Your task to perform on an android device: clear all cookies in the chrome app Image 0: 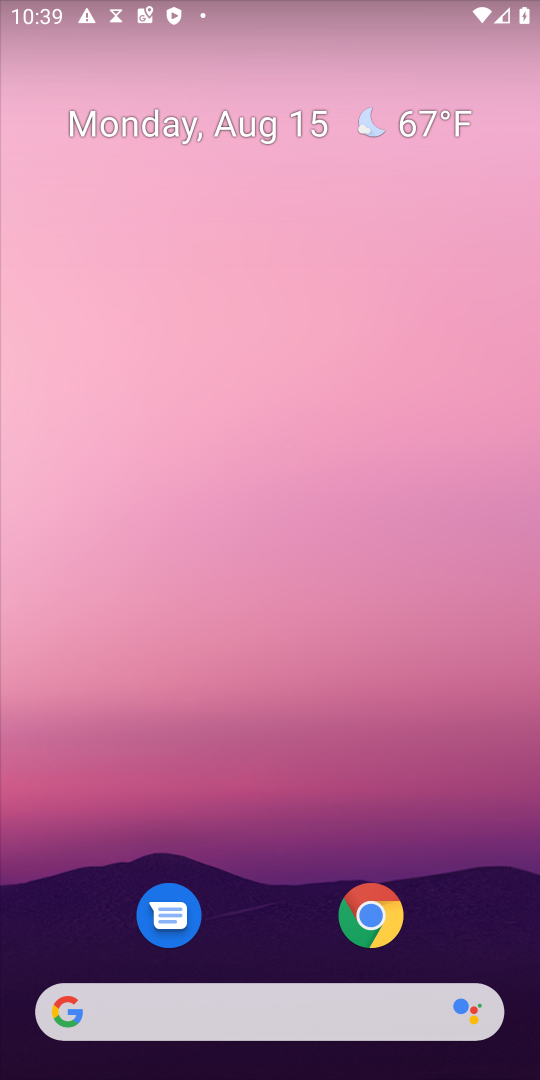
Step 0: press home button
Your task to perform on an android device: clear all cookies in the chrome app Image 1: 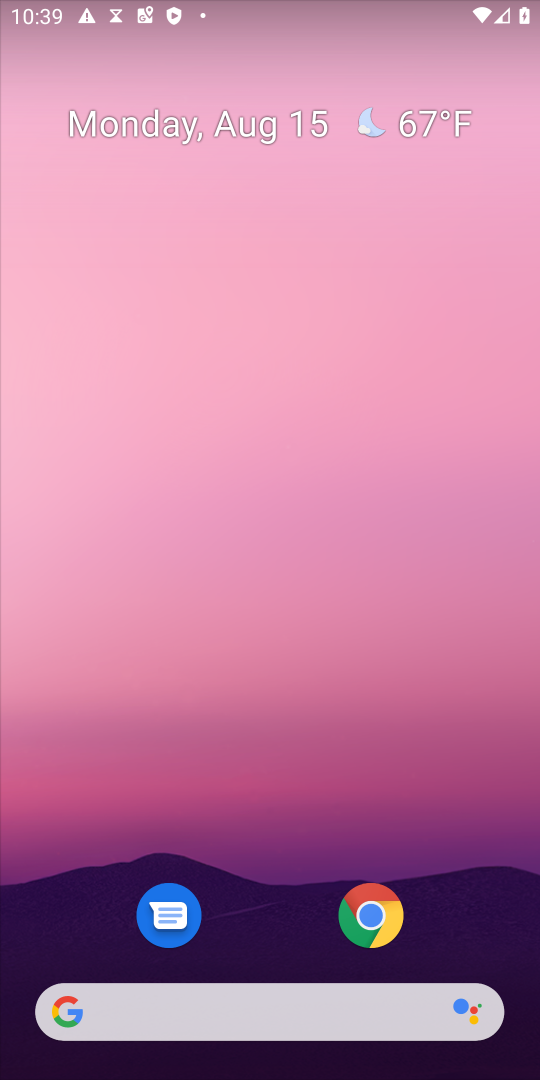
Step 1: click (373, 926)
Your task to perform on an android device: clear all cookies in the chrome app Image 2: 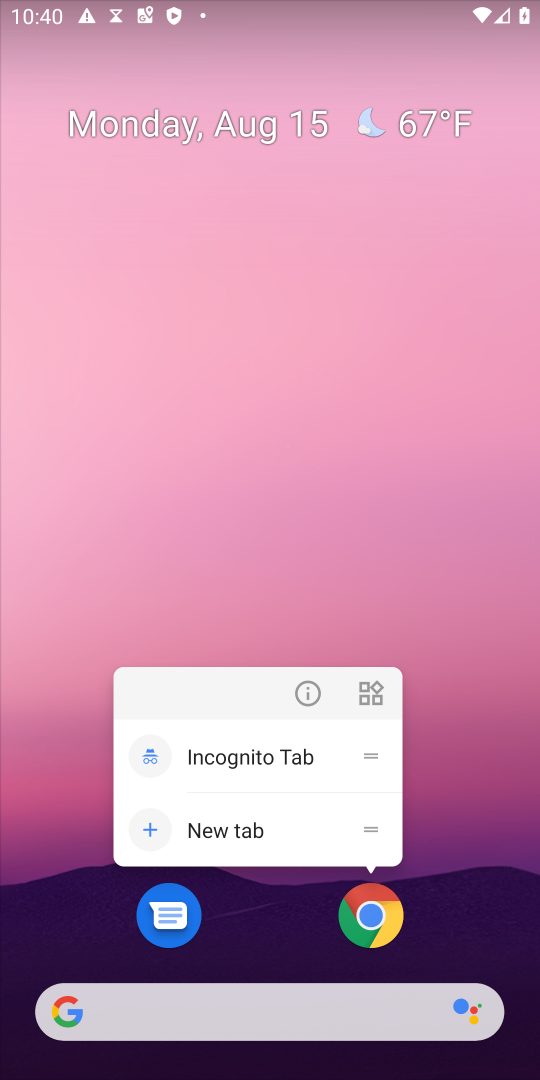
Step 2: click (373, 926)
Your task to perform on an android device: clear all cookies in the chrome app Image 3: 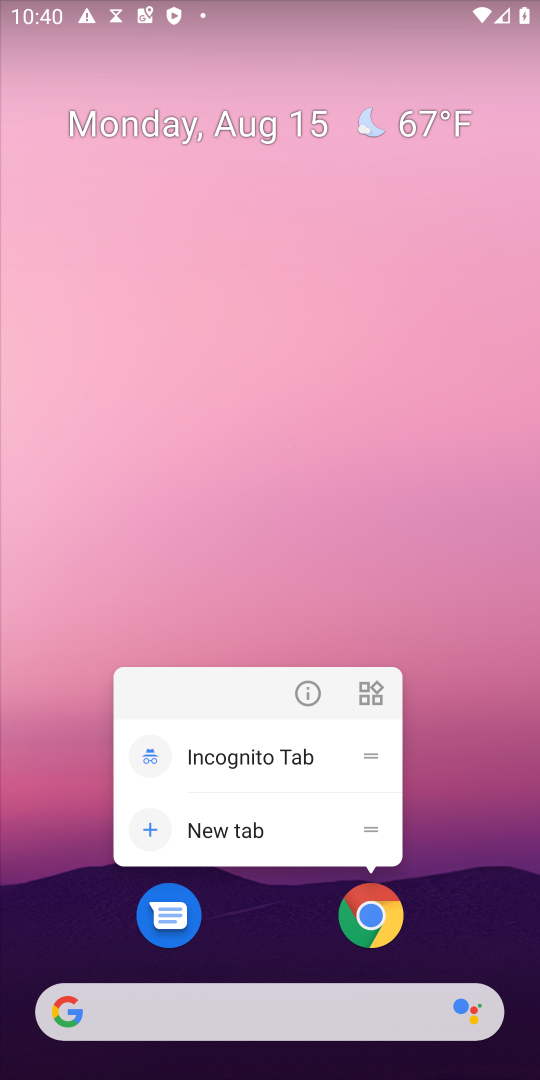
Step 3: click (373, 926)
Your task to perform on an android device: clear all cookies in the chrome app Image 4: 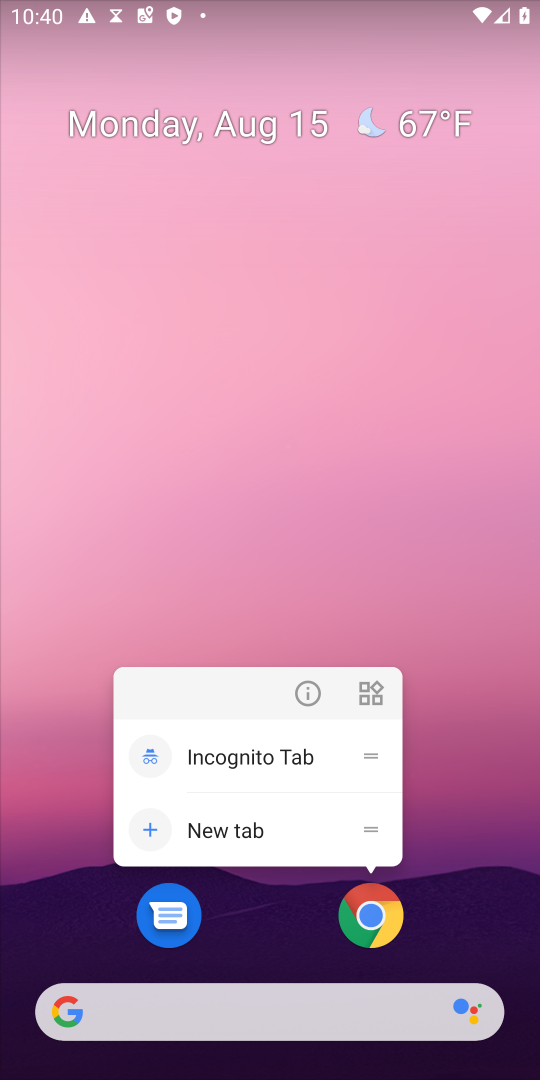
Step 4: click (369, 929)
Your task to perform on an android device: clear all cookies in the chrome app Image 5: 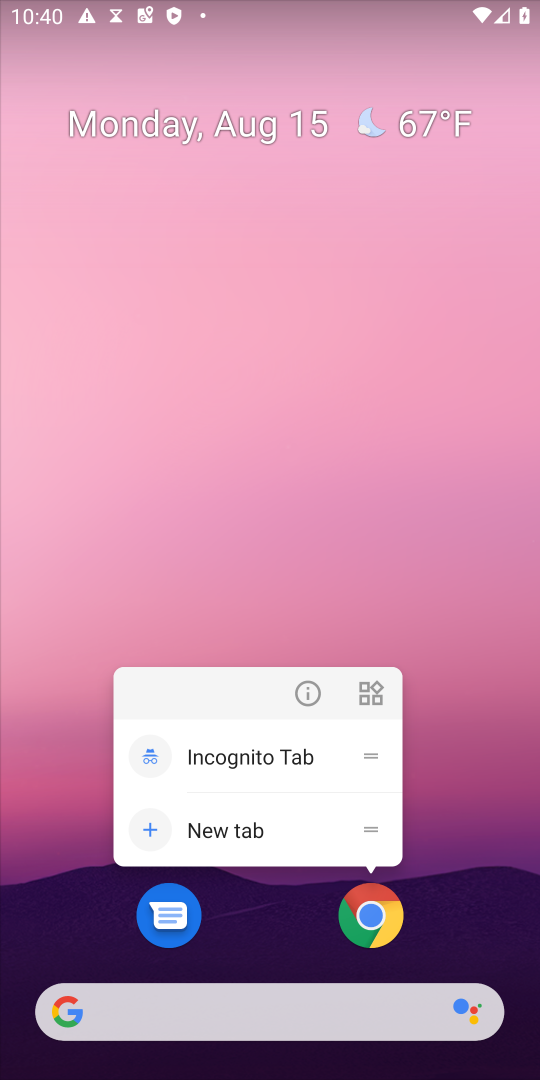
Step 5: click (369, 929)
Your task to perform on an android device: clear all cookies in the chrome app Image 6: 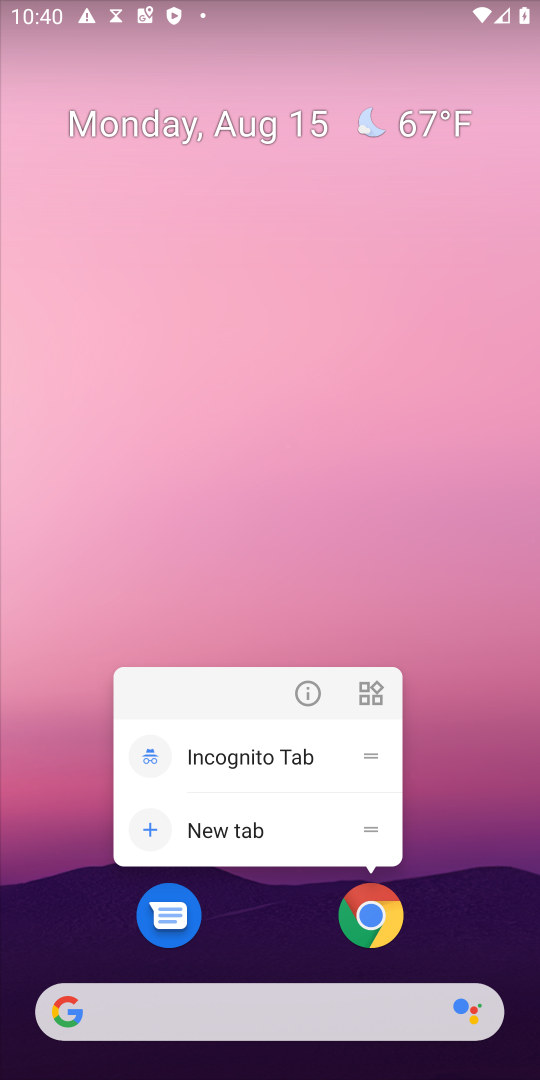
Step 6: click (392, 921)
Your task to perform on an android device: clear all cookies in the chrome app Image 7: 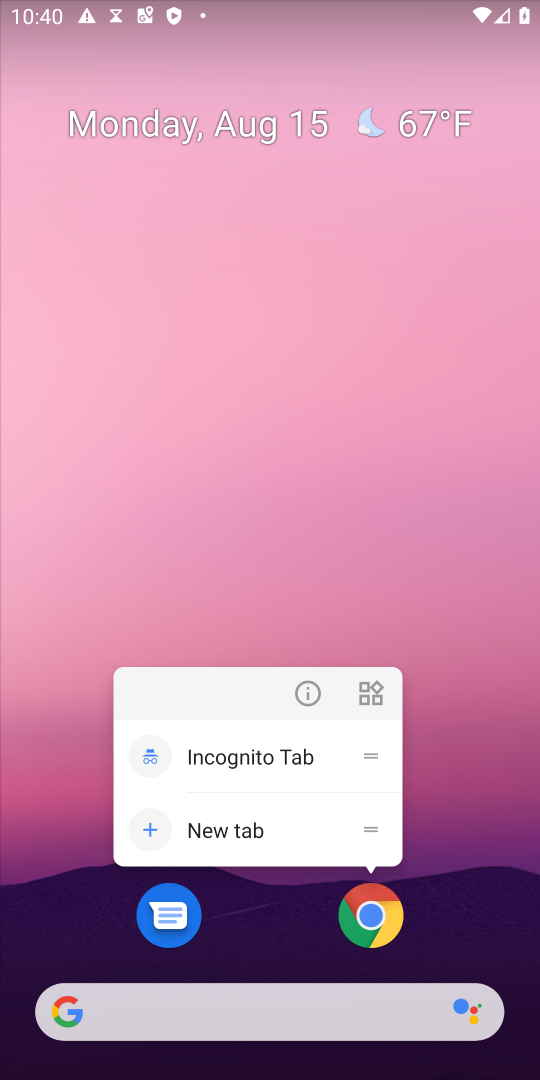
Step 7: click (379, 925)
Your task to perform on an android device: clear all cookies in the chrome app Image 8: 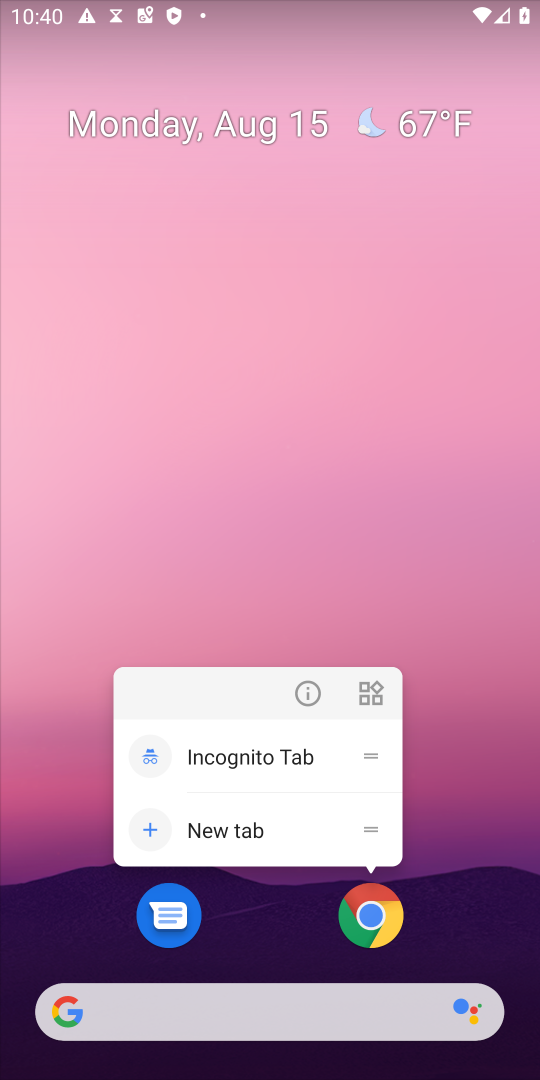
Step 8: click (379, 925)
Your task to perform on an android device: clear all cookies in the chrome app Image 9: 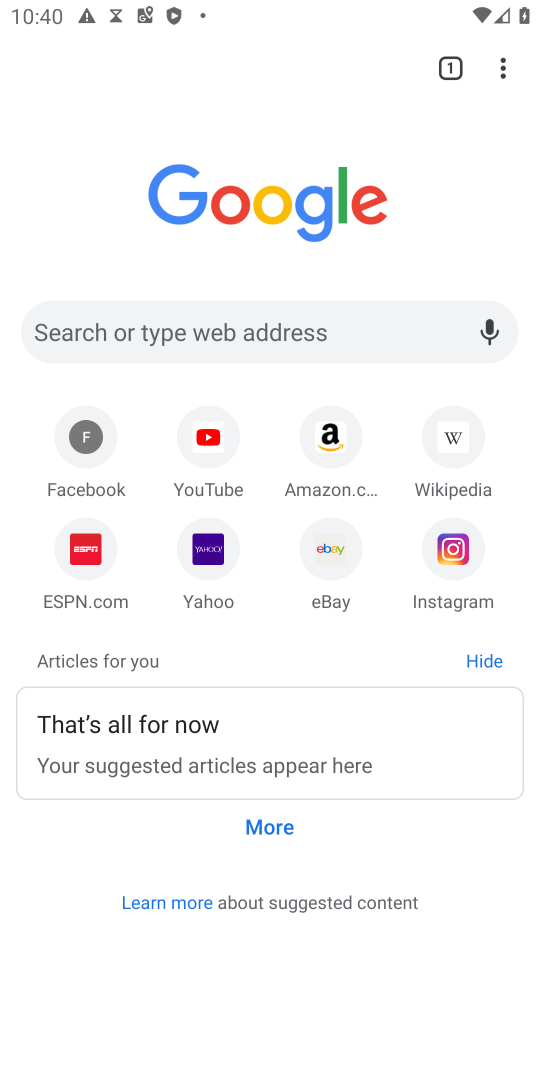
Step 9: drag from (504, 63) to (291, 562)
Your task to perform on an android device: clear all cookies in the chrome app Image 10: 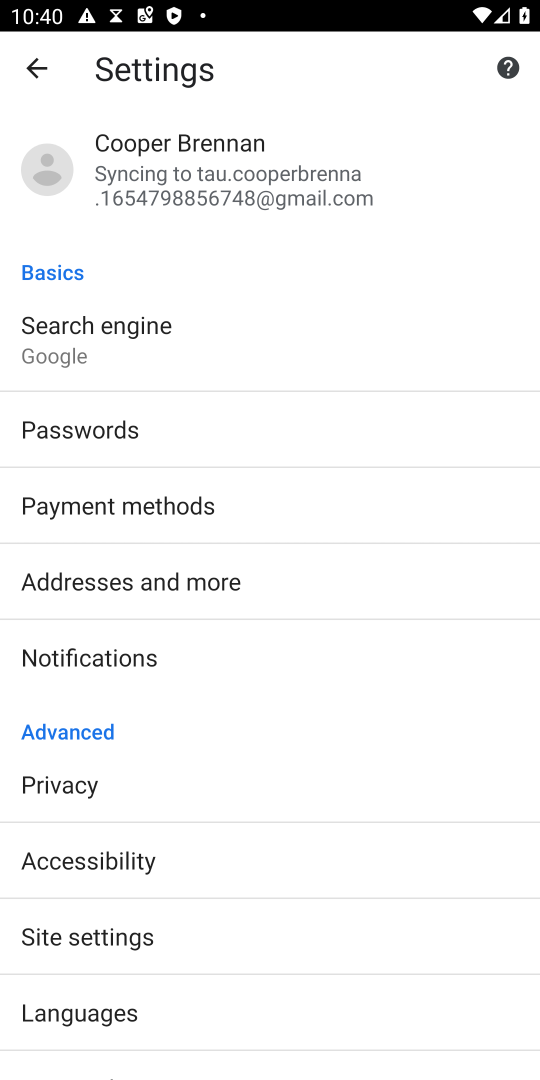
Step 10: click (58, 787)
Your task to perform on an android device: clear all cookies in the chrome app Image 11: 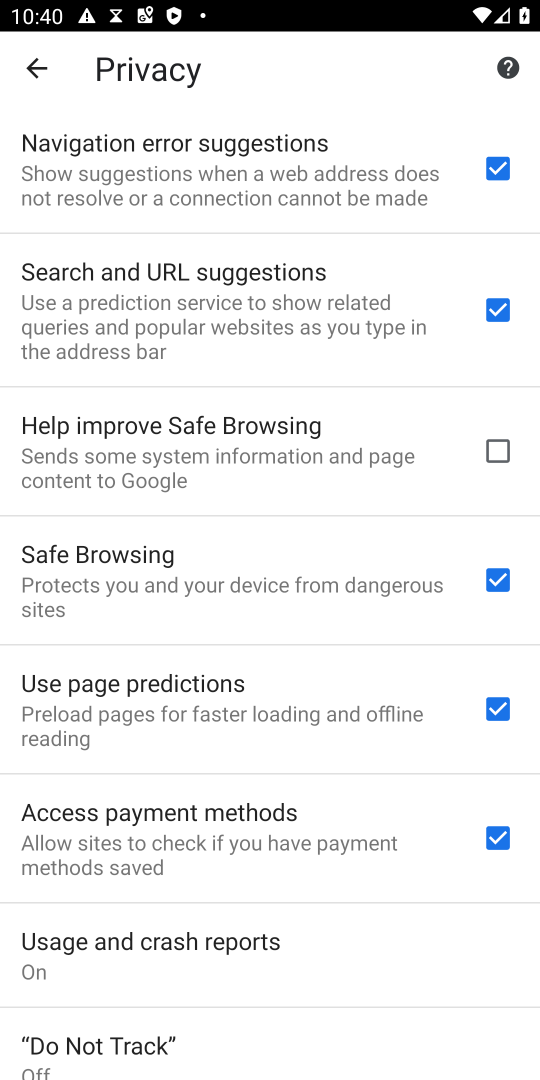
Step 11: drag from (445, 967) to (529, 358)
Your task to perform on an android device: clear all cookies in the chrome app Image 12: 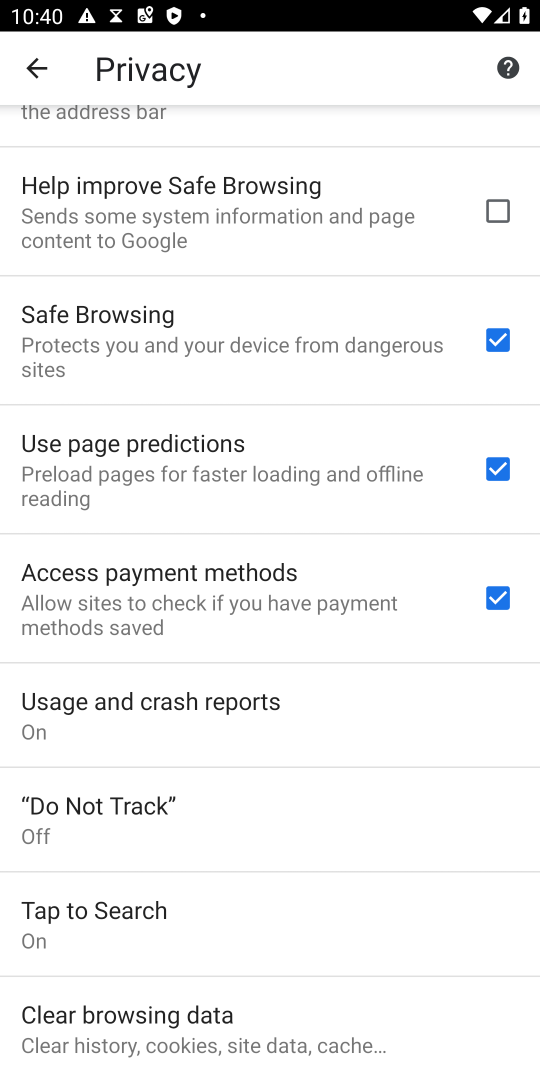
Step 12: click (149, 1022)
Your task to perform on an android device: clear all cookies in the chrome app Image 13: 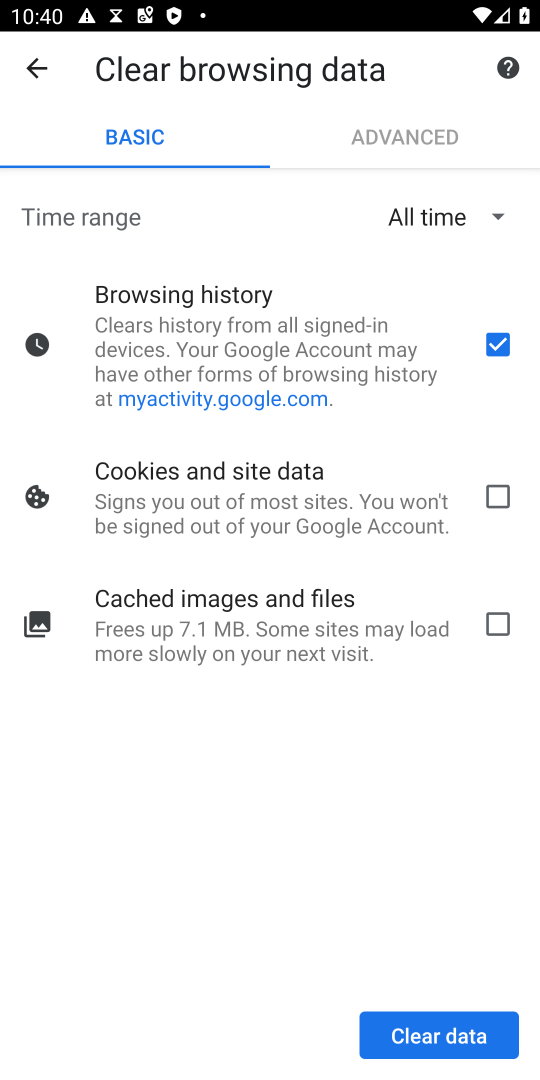
Step 13: click (500, 502)
Your task to perform on an android device: clear all cookies in the chrome app Image 14: 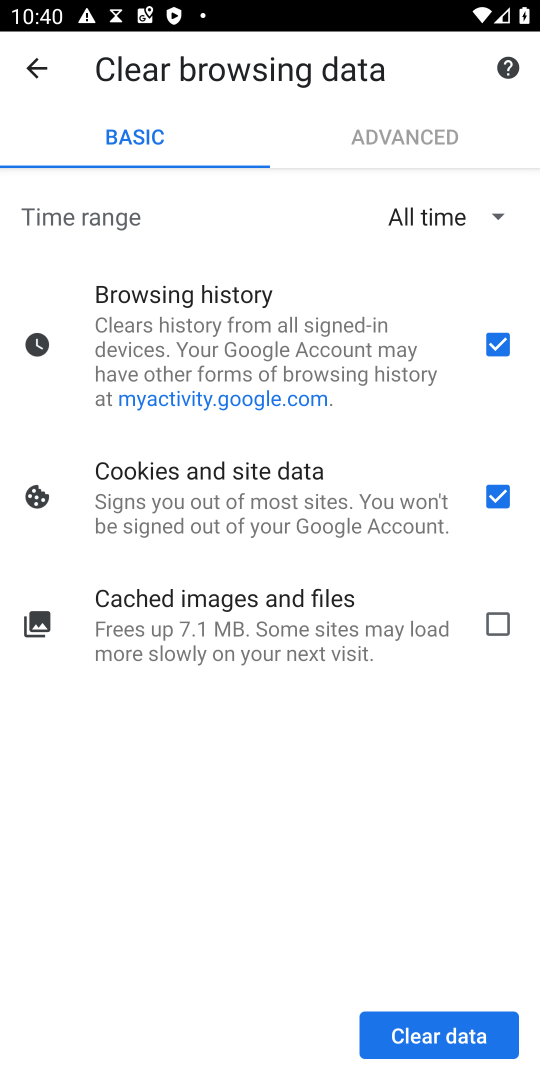
Step 14: click (494, 340)
Your task to perform on an android device: clear all cookies in the chrome app Image 15: 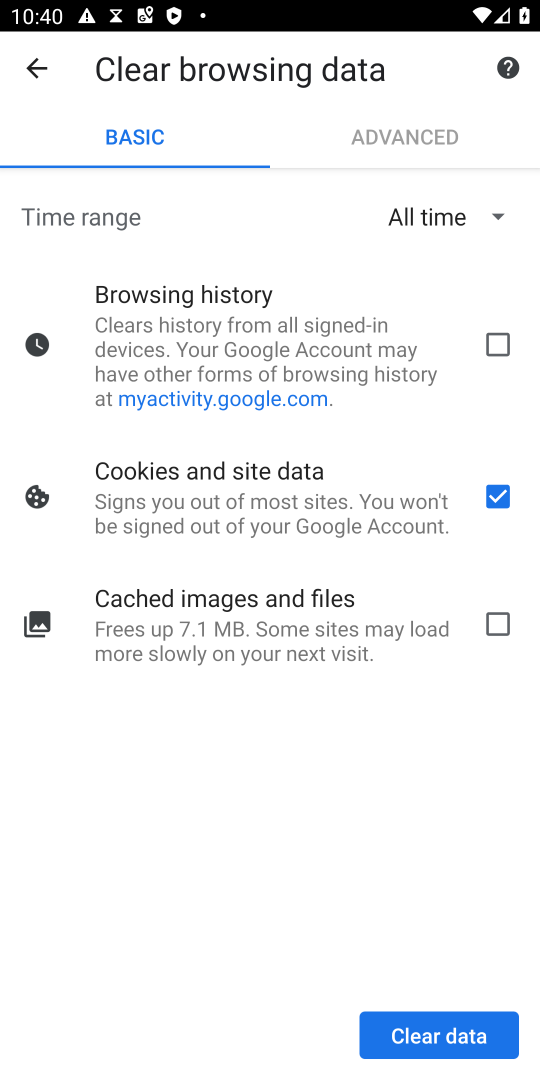
Step 15: click (431, 1049)
Your task to perform on an android device: clear all cookies in the chrome app Image 16: 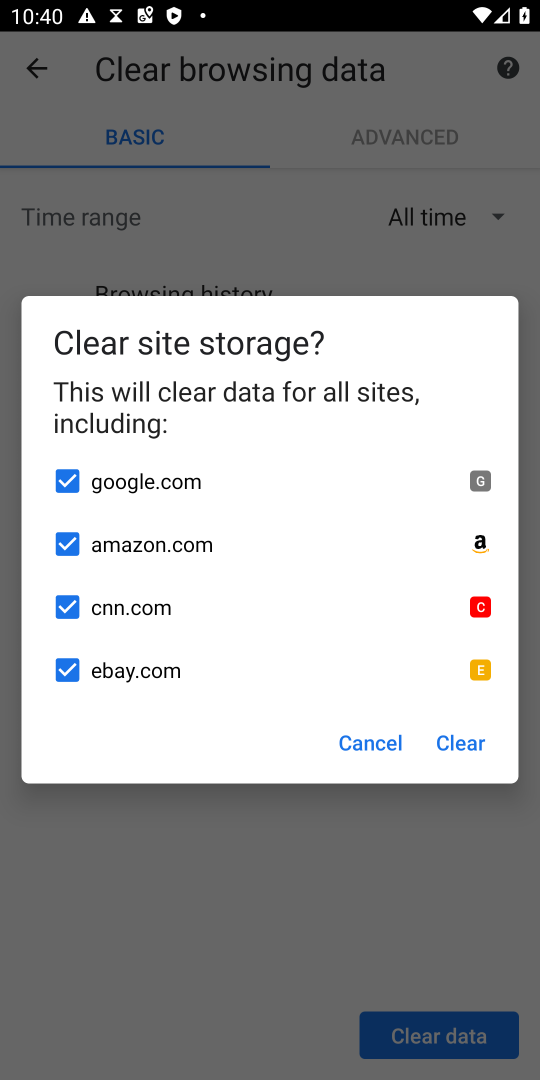
Step 16: click (476, 749)
Your task to perform on an android device: clear all cookies in the chrome app Image 17: 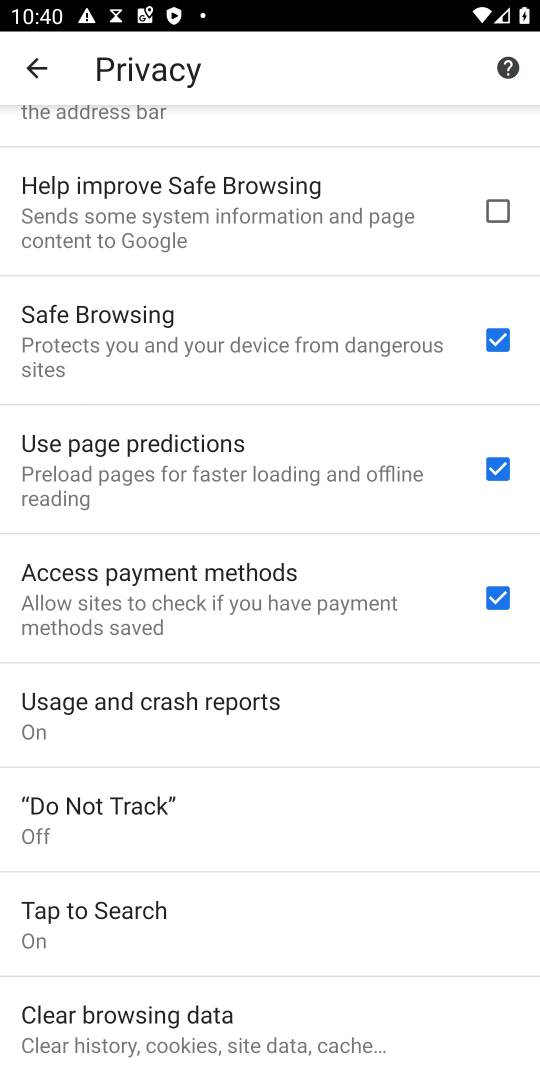
Step 17: task complete